Your task to perform on an android device: Is it going to rain this weekend? Image 0: 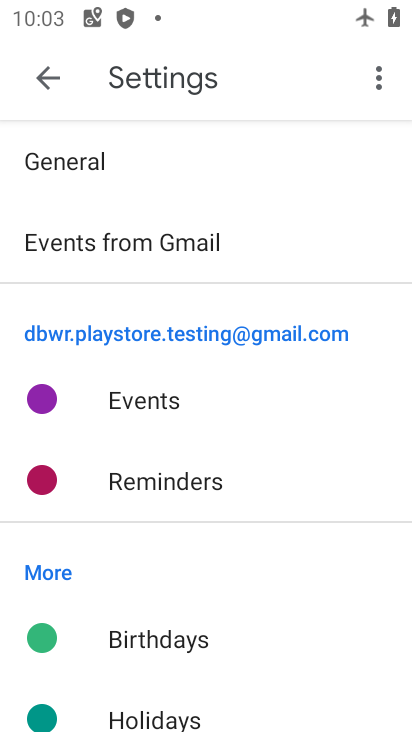
Step 0: press home button
Your task to perform on an android device: Is it going to rain this weekend? Image 1: 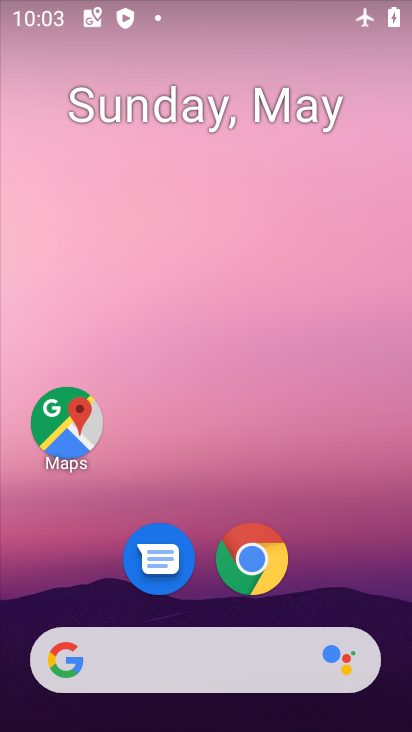
Step 1: drag from (202, 619) to (270, 46)
Your task to perform on an android device: Is it going to rain this weekend? Image 2: 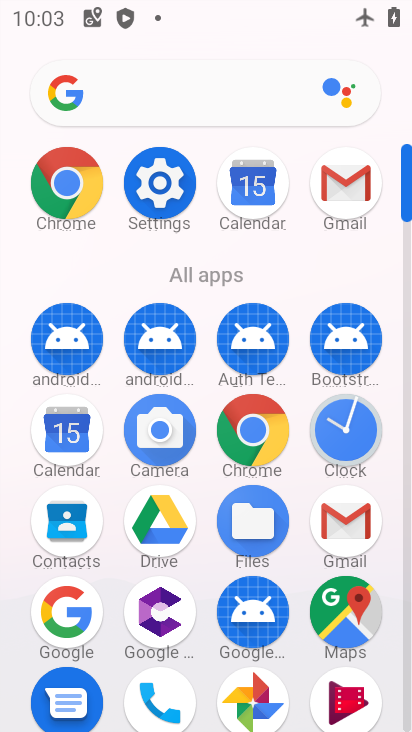
Step 2: click (51, 605)
Your task to perform on an android device: Is it going to rain this weekend? Image 3: 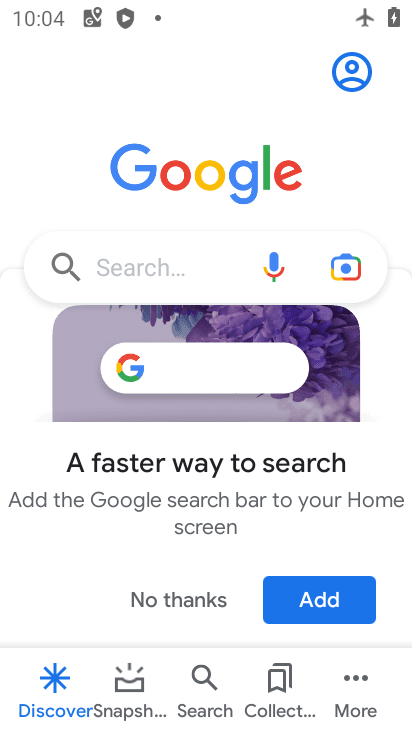
Step 3: click (170, 264)
Your task to perform on an android device: Is it going to rain this weekend? Image 4: 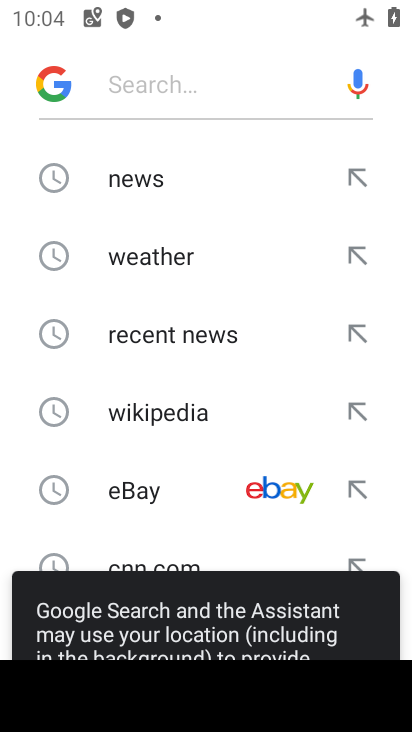
Step 4: click (146, 258)
Your task to perform on an android device: Is it going to rain this weekend? Image 5: 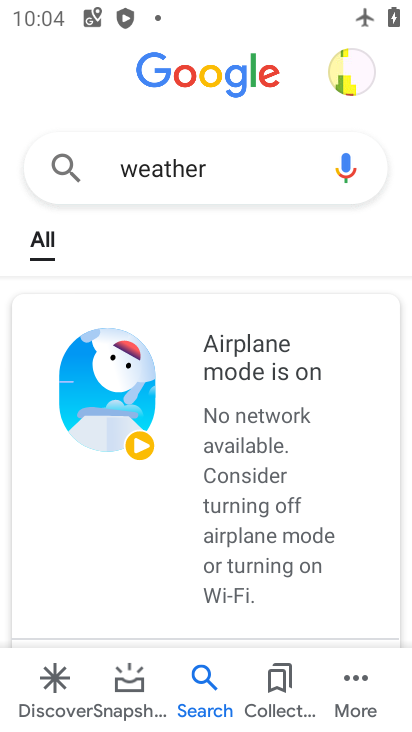
Step 5: task complete